Your task to perform on an android device: allow notifications from all sites in the chrome app Image 0: 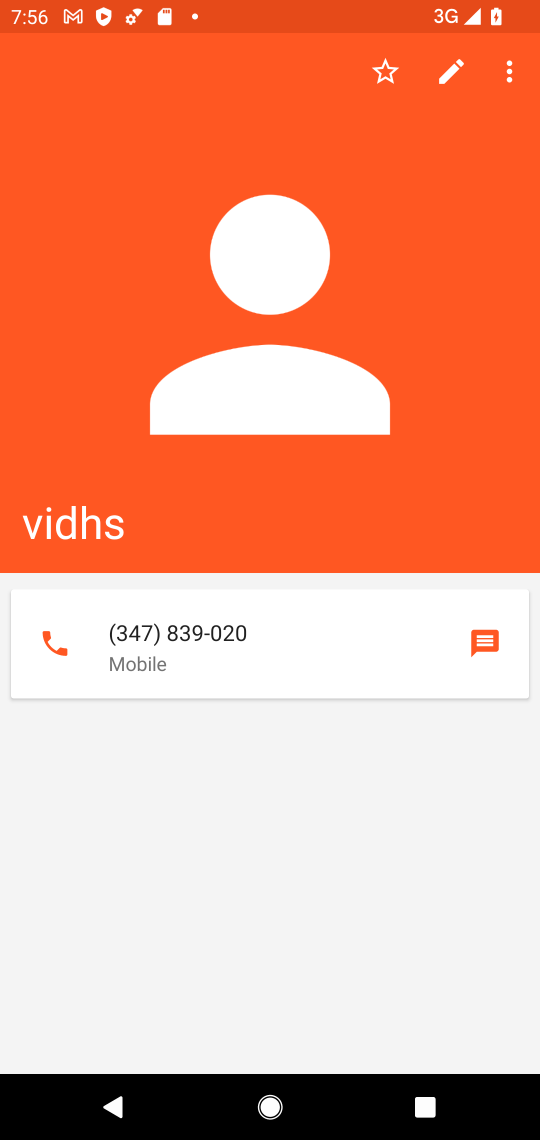
Step 0: press home button
Your task to perform on an android device: allow notifications from all sites in the chrome app Image 1: 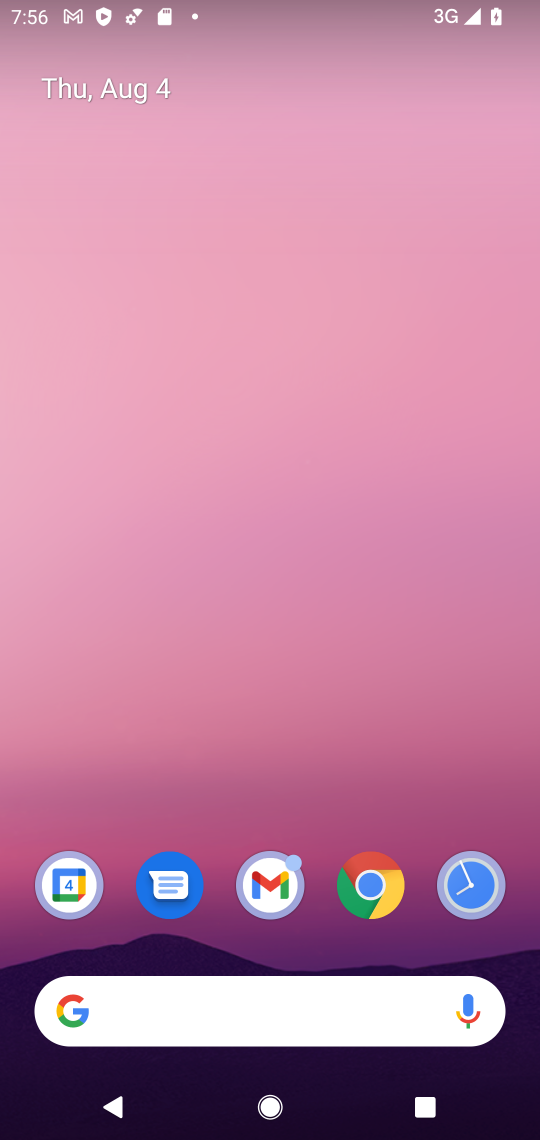
Step 1: click (366, 870)
Your task to perform on an android device: allow notifications from all sites in the chrome app Image 2: 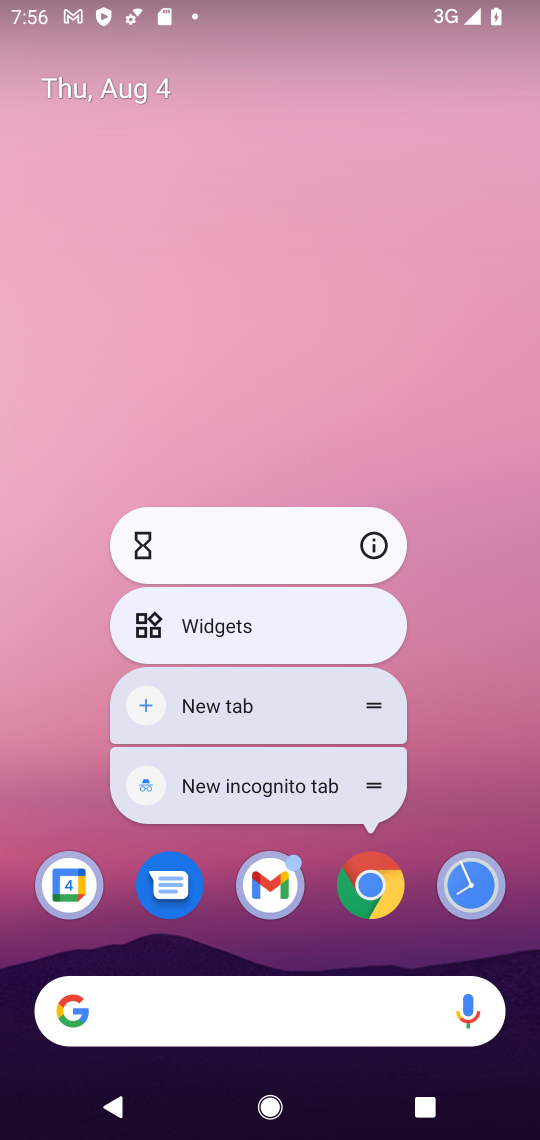
Step 2: click (369, 538)
Your task to perform on an android device: allow notifications from all sites in the chrome app Image 3: 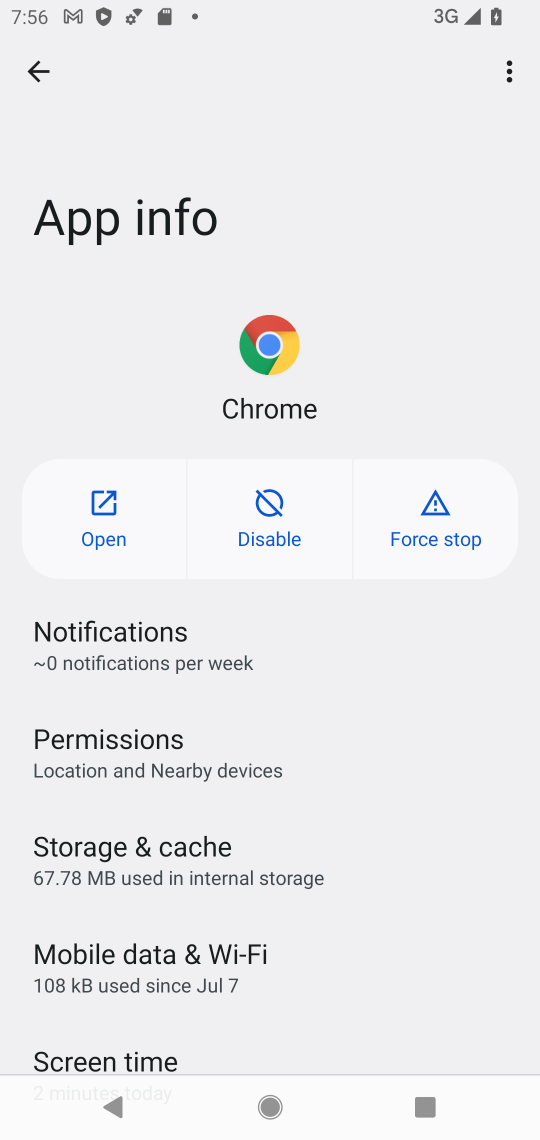
Step 3: click (164, 762)
Your task to perform on an android device: allow notifications from all sites in the chrome app Image 4: 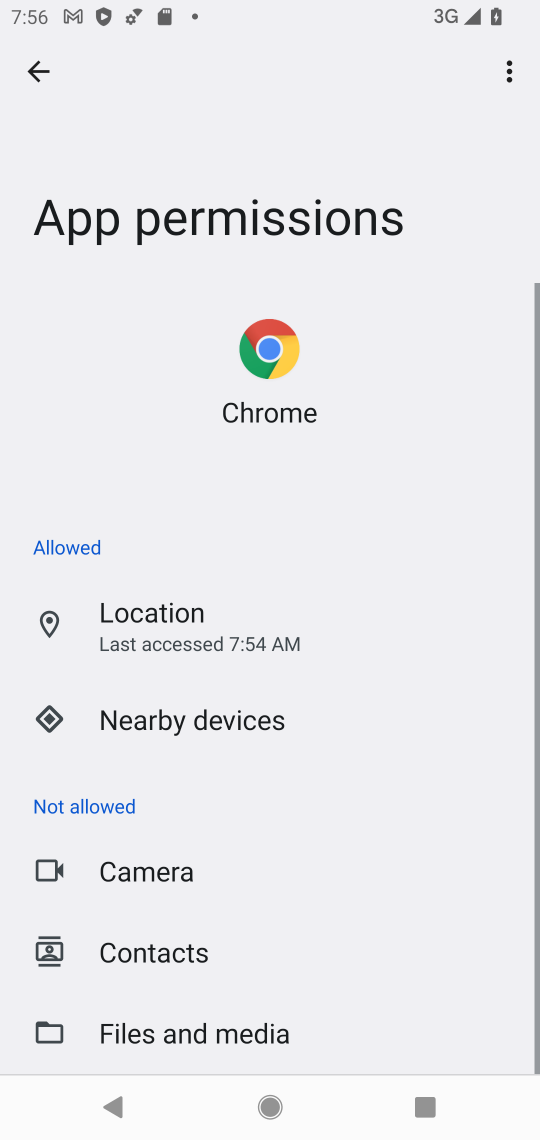
Step 4: click (170, 854)
Your task to perform on an android device: allow notifications from all sites in the chrome app Image 5: 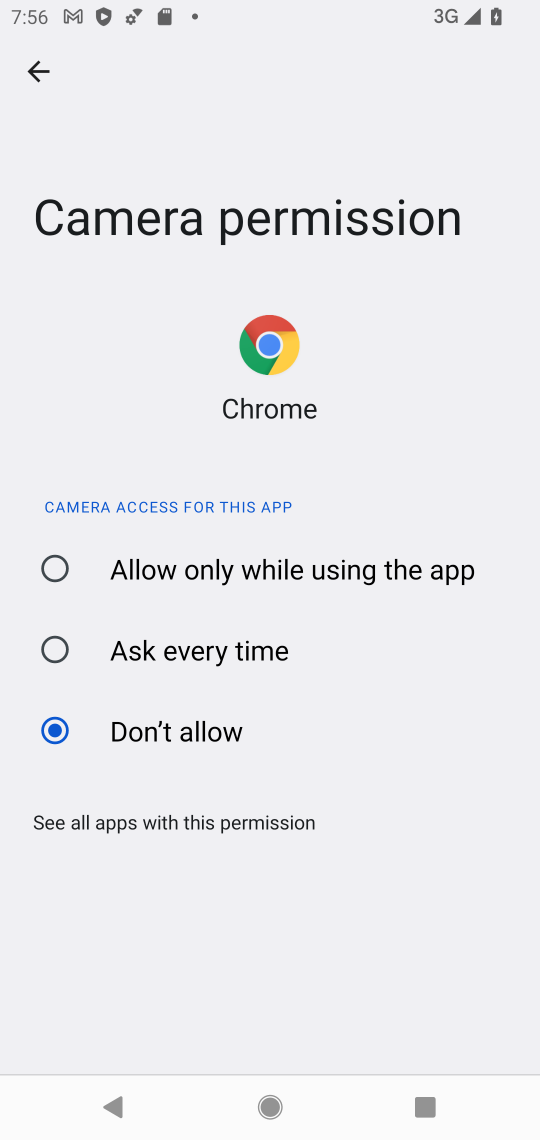
Step 5: click (188, 560)
Your task to perform on an android device: allow notifications from all sites in the chrome app Image 6: 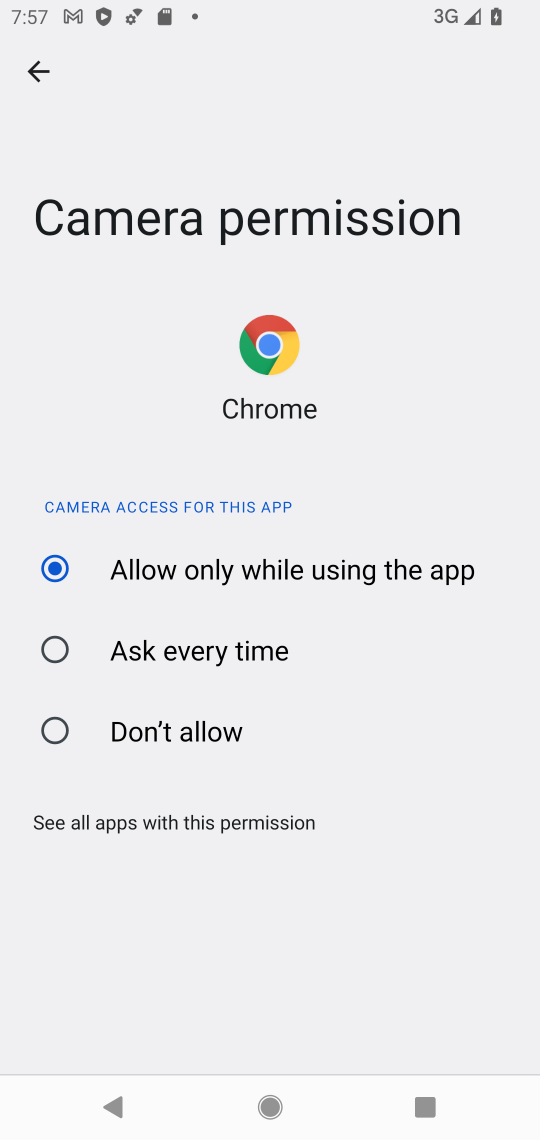
Step 6: click (27, 76)
Your task to perform on an android device: allow notifications from all sites in the chrome app Image 7: 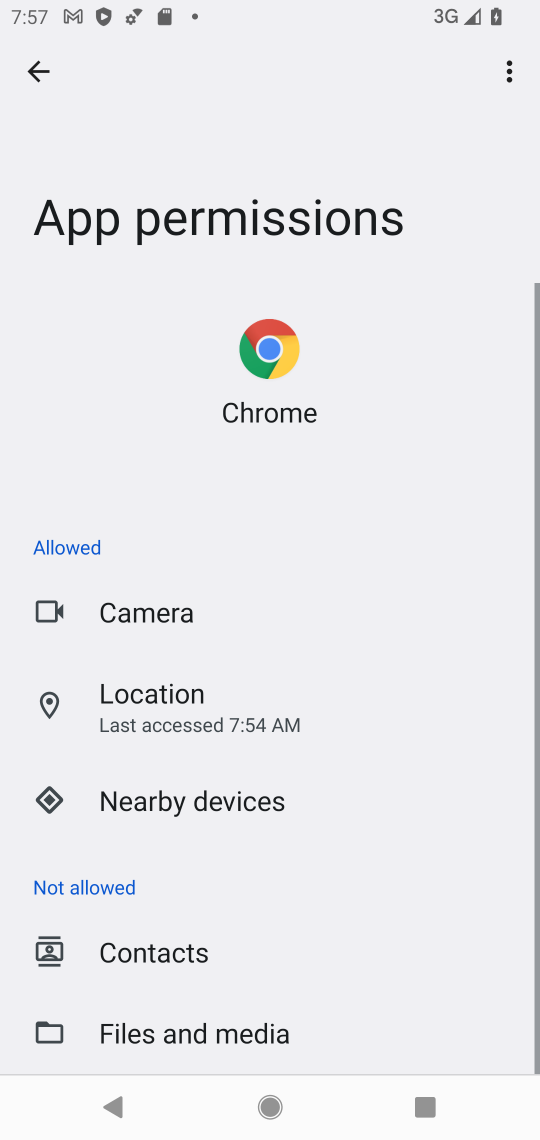
Step 7: click (209, 949)
Your task to perform on an android device: allow notifications from all sites in the chrome app Image 8: 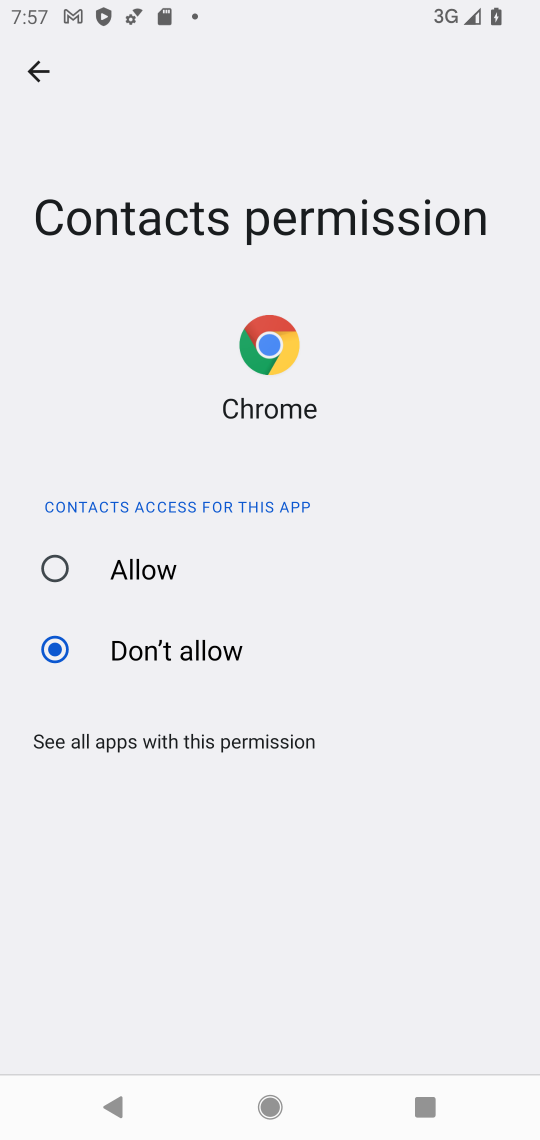
Step 8: click (149, 579)
Your task to perform on an android device: allow notifications from all sites in the chrome app Image 9: 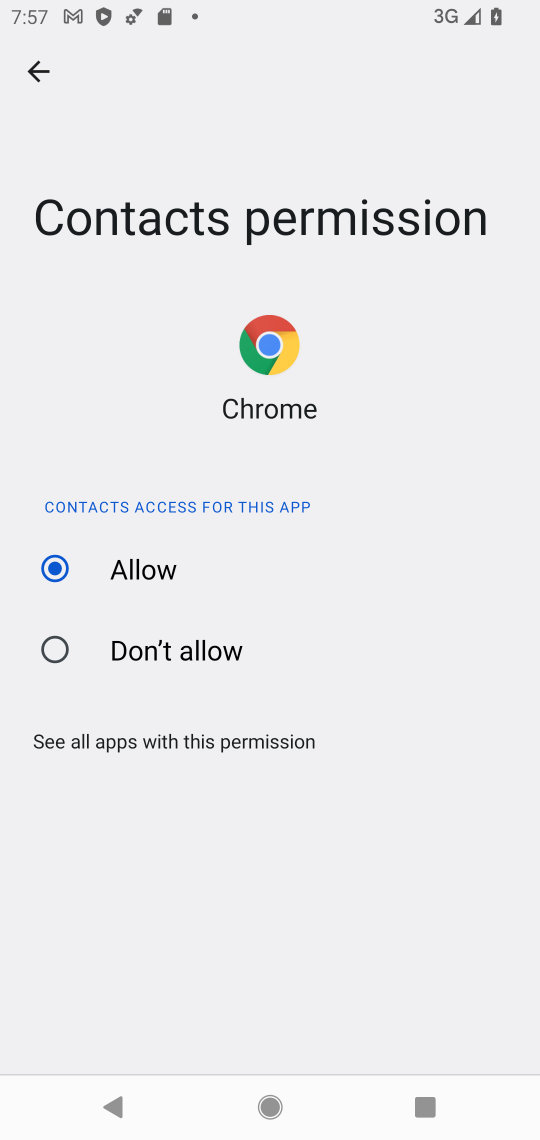
Step 9: click (31, 65)
Your task to perform on an android device: allow notifications from all sites in the chrome app Image 10: 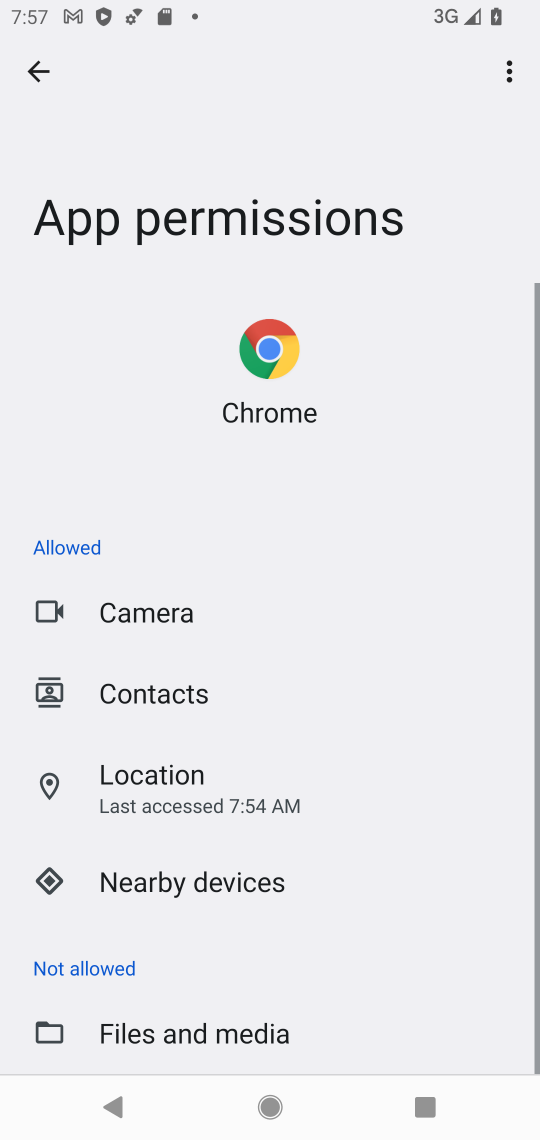
Step 10: click (139, 1023)
Your task to perform on an android device: allow notifications from all sites in the chrome app Image 11: 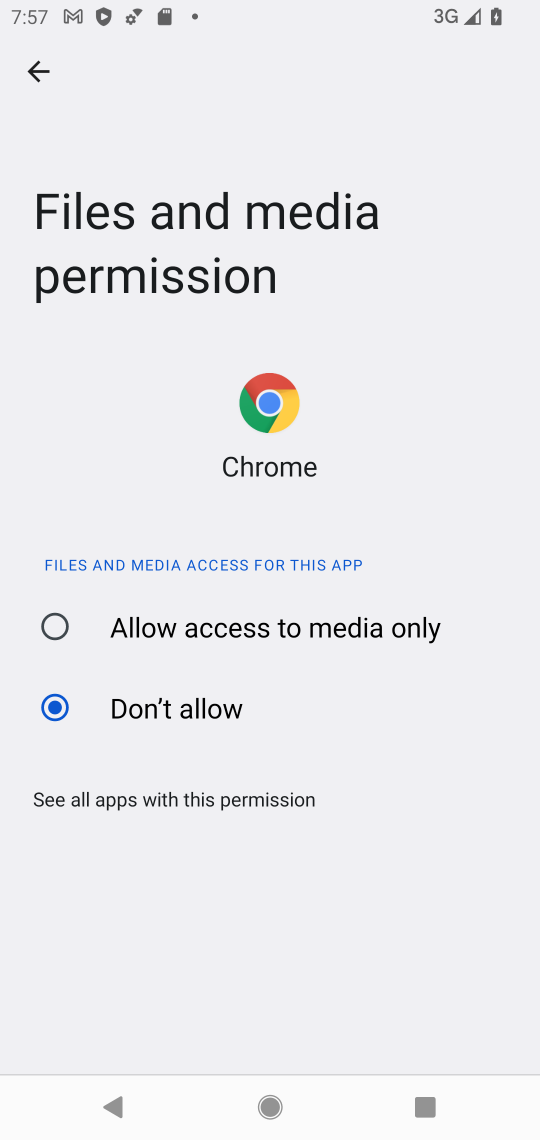
Step 11: click (114, 623)
Your task to perform on an android device: allow notifications from all sites in the chrome app Image 12: 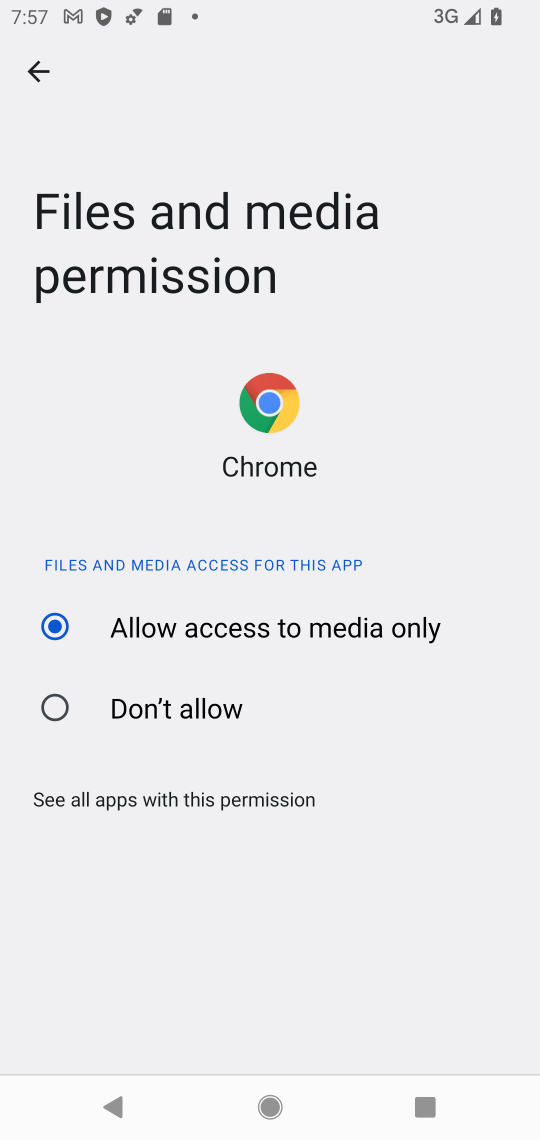
Step 12: click (49, 57)
Your task to perform on an android device: allow notifications from all sites in the chrome app Image 13: 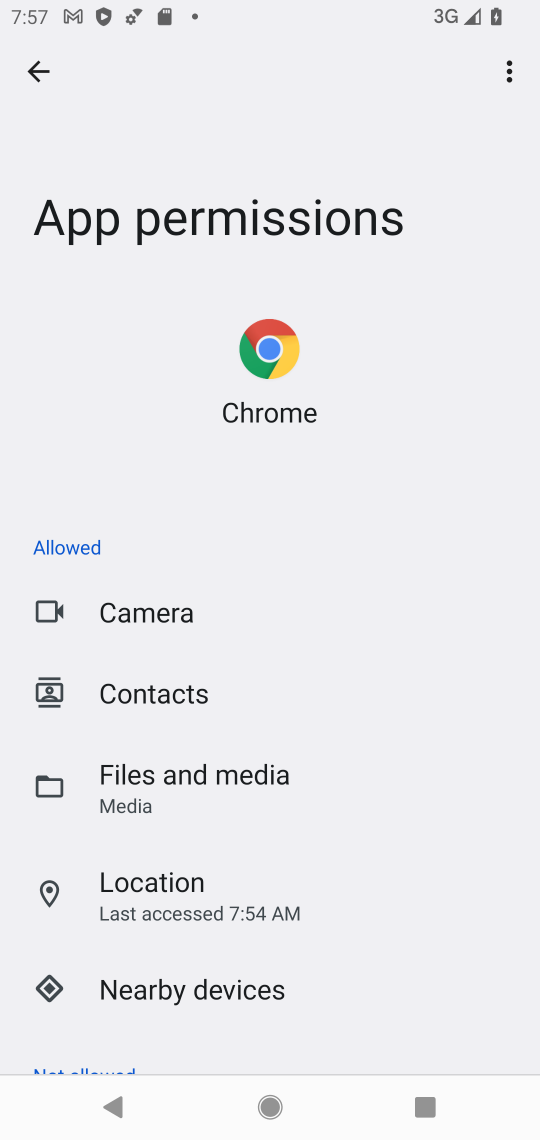
Step 13: task complete